Your task to perform on an android device: change notification settings in the gmail app Image 0: 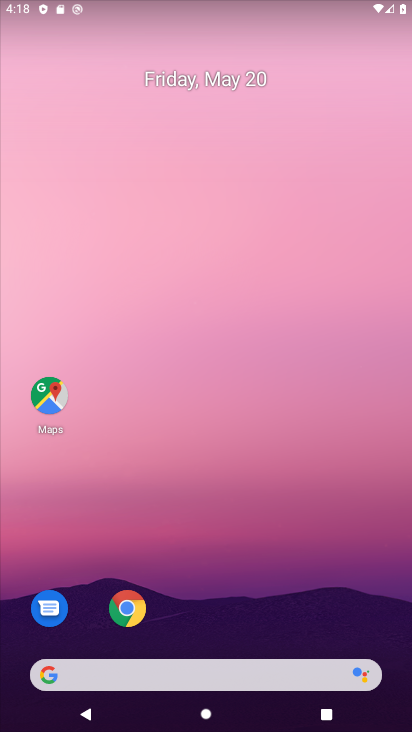
Step 0: drag from (235, 635) to (189, 115)
Your task to perform on an android device: change notification settings in the gmail app Image 1: 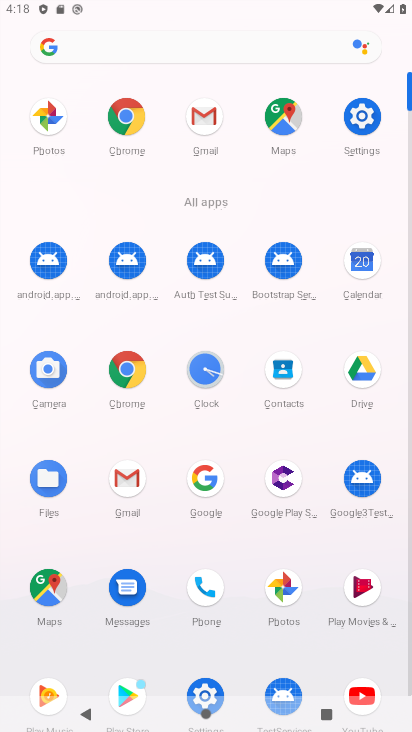
Step 1: click (144, 479)
Your task to perform on an android device: change notification settings in the gmail app Image 2: 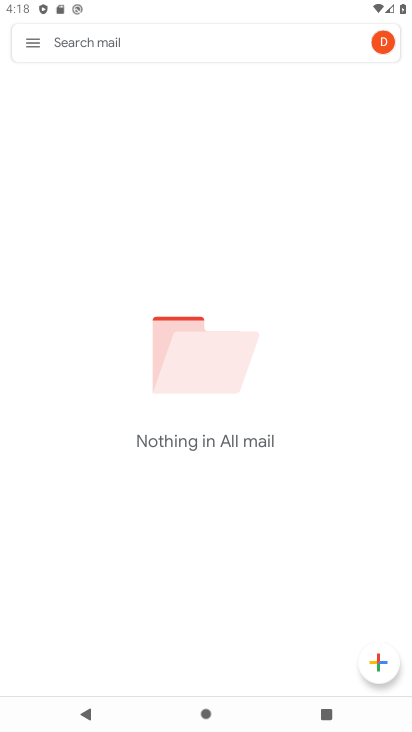
Step 2: click (30, 52)
Your task to perform on an android device: change notification settings in the gmail app Image 3: 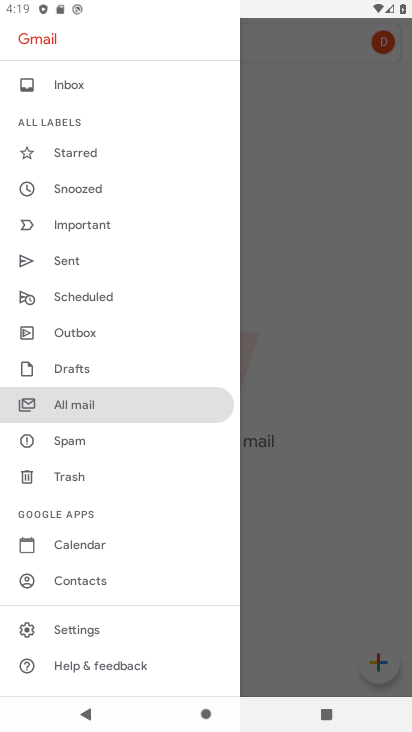
Step 3: click (70, 632)
Your task to perform on an android device: change notification settings in the gmail app Image 4: 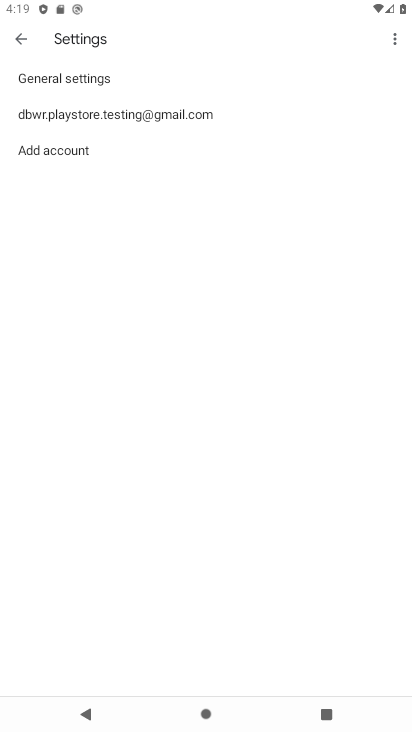
Step 4: click (97, 123)
Your task to perform on an android device: change notification settings in the gmail app Image 5: 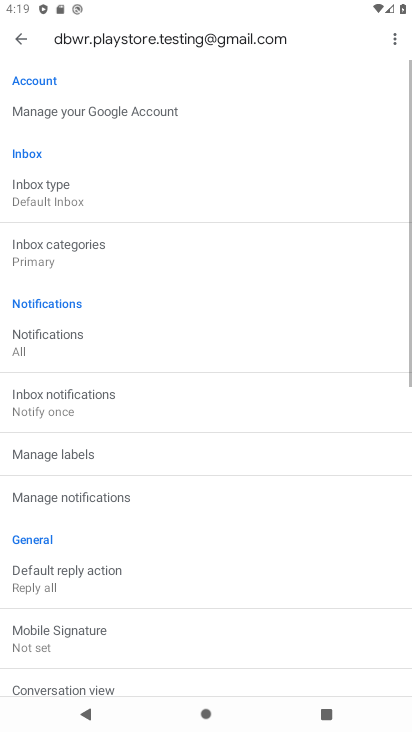
Step 5: click (15, 32)
Your task to perform on an android device: change notification settings in the gmail app Image 6: 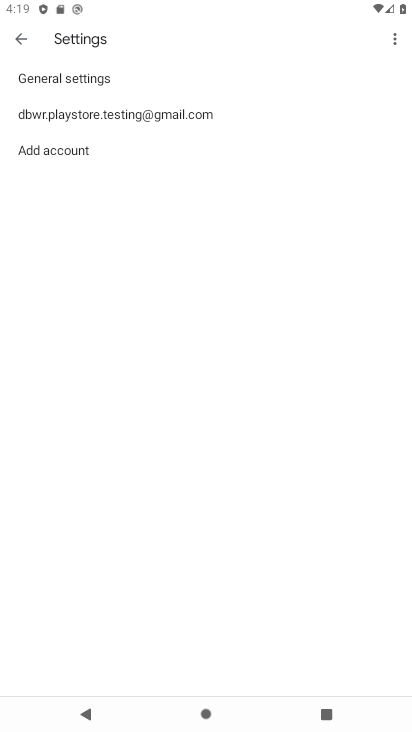
Step 6: click (56, 68)
Your task to perform on an android device: change notification settings in the gmail app Image 7: 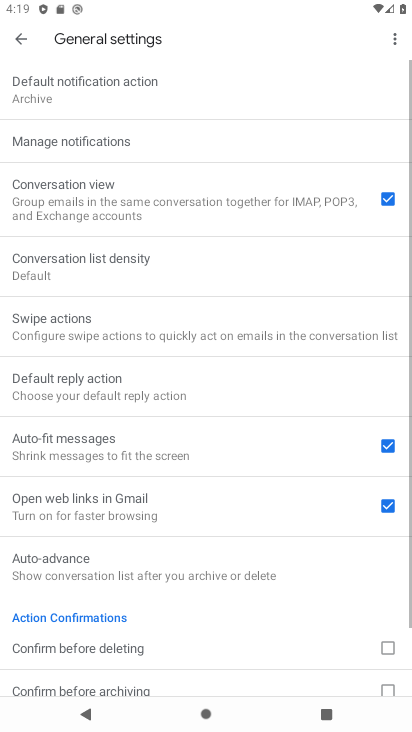
Step 7: click (106, 132)
Your task to perform on an android device: change notification settings in the gmail app Image 8: 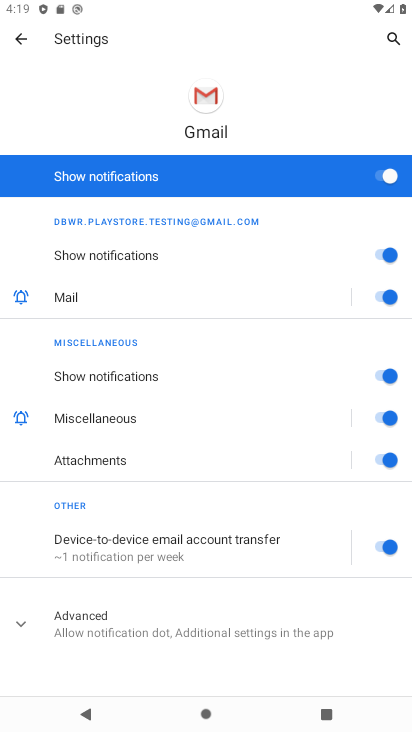
Step 8: click (385, 174)
Your task to perform on an android device: change notification settings in the gmail app Image 9: 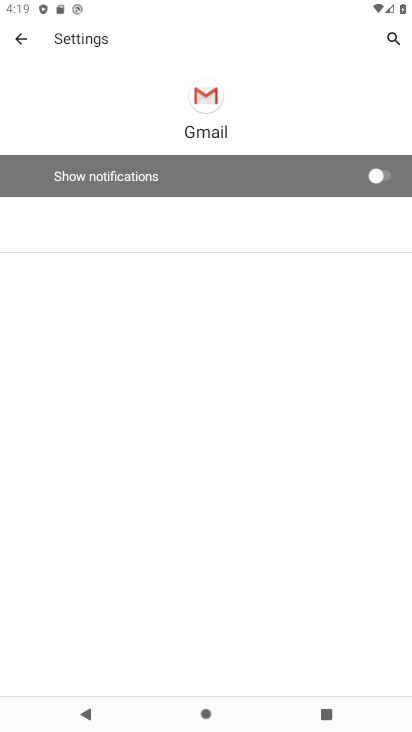
Step 9: task complete